Your task to perform on an android device: open chrome privacy settings Image 0: 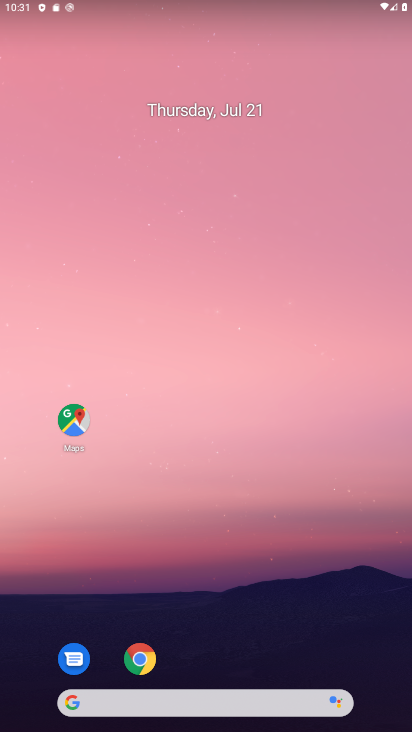
Step 0: press home button
Your task to perform on an android device: open chrome privacy settings Image 1: 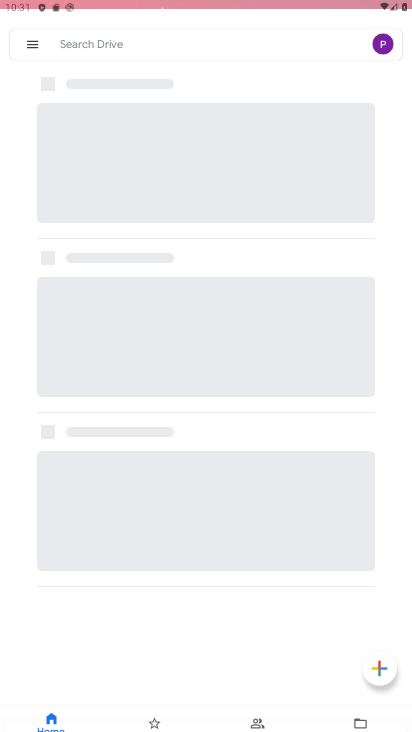
Step 1: press home button
Your task to perform on an android device: open chrome privacy settings Image 2: 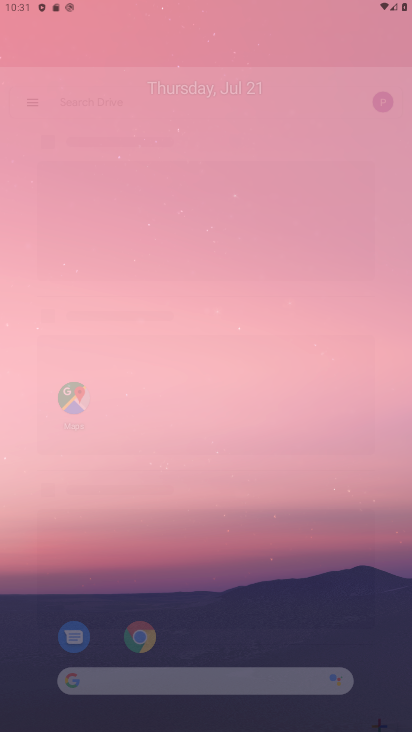
Step 2: click (212, 447)
Your task to perform on an android device: open chrome privacy settings Image 3: 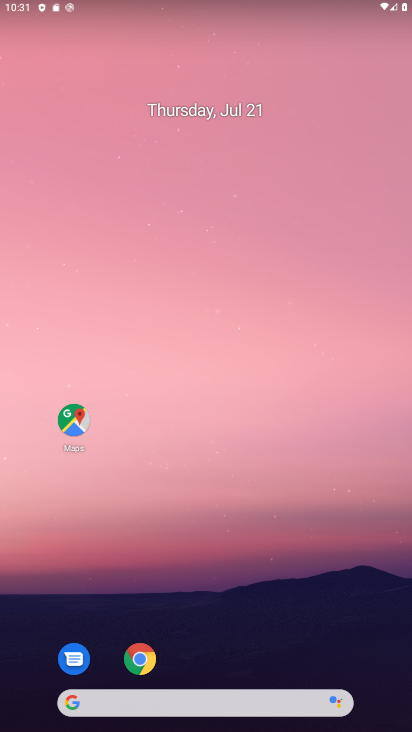
Step 3: click (146, 659)
Your task to perform on an android device: open chrome privacy settings Image 4: 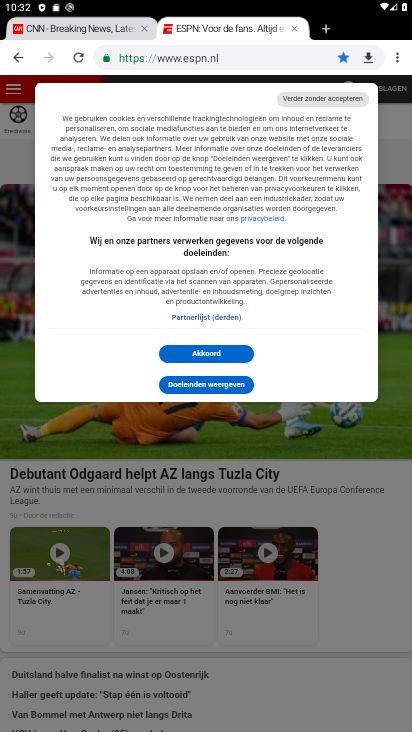
Step 4: click (398, 58)
Your task to perform on an android device: open chrome privacy settings Image 5: 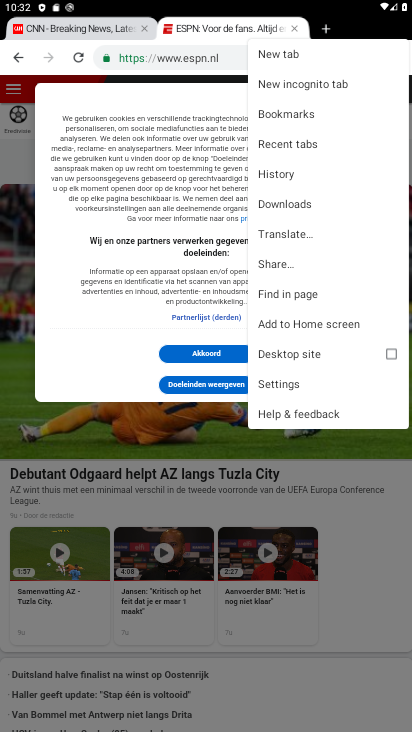
Step 5: click (270, 384)
Your task to perform on an android device: open chrome privacy settings Image 6: 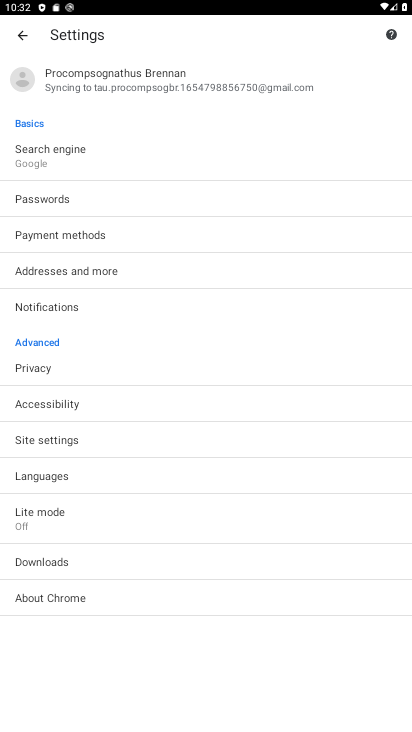
Step 6: click (35, 368)
Your task to perform on an android device: open chrome privacy settings Image 7: 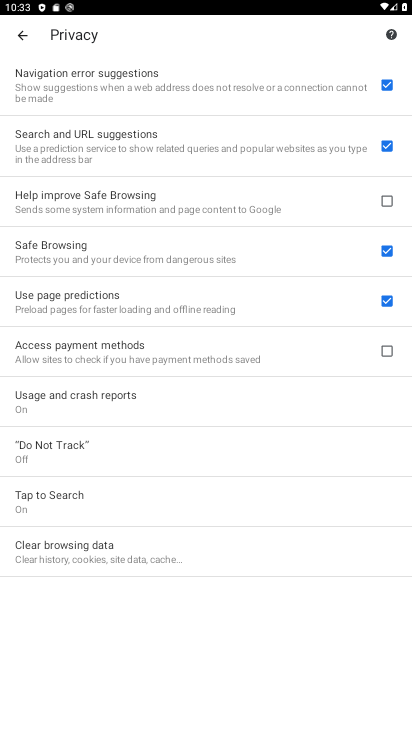
Step 7: task complete